Your task to perform on an android device: What's on Reddit Image 0: 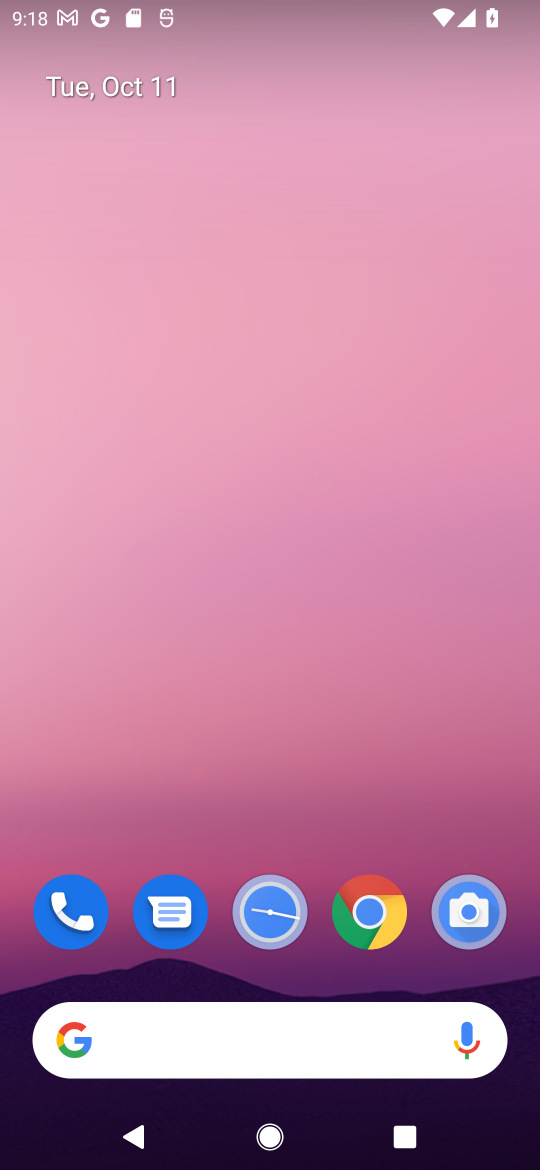
Step 0: click (368, 920)
Your task to perform on an android device: What's on Reddit Image 1: 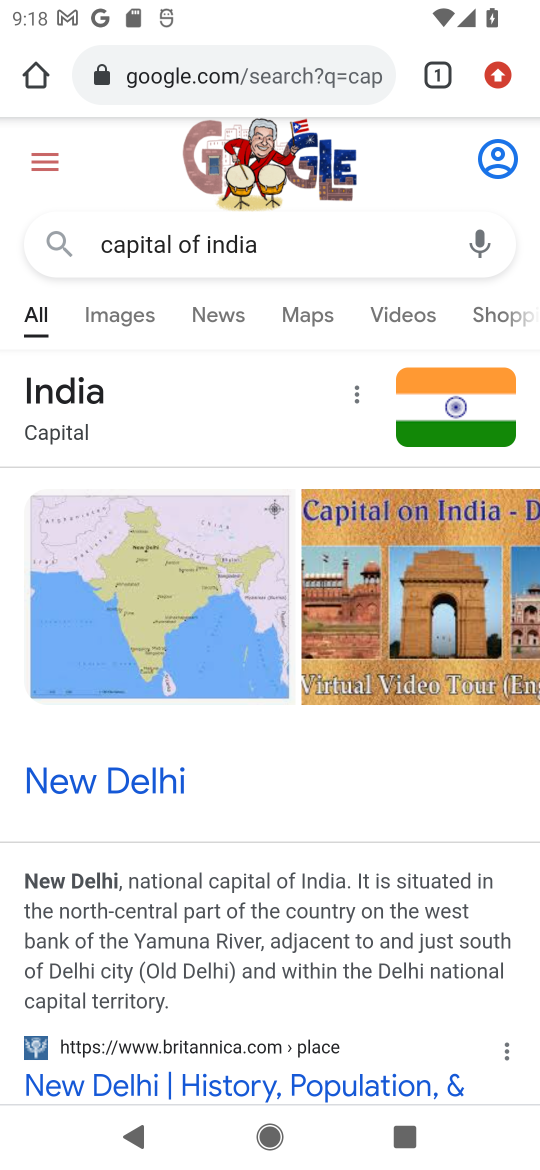
Step 1: click (251, 55)
Your task to perform on an android device: What's on Reddit Image 2: 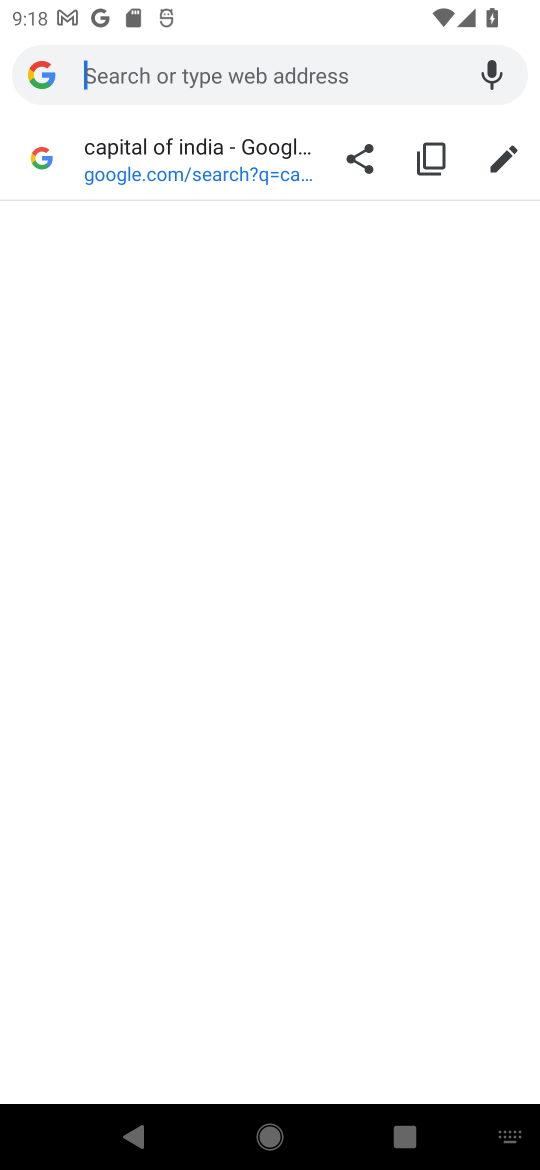
Step 2: type "what's on reddit"
Your task to perform on an android device: What's on Reddit Image 3: 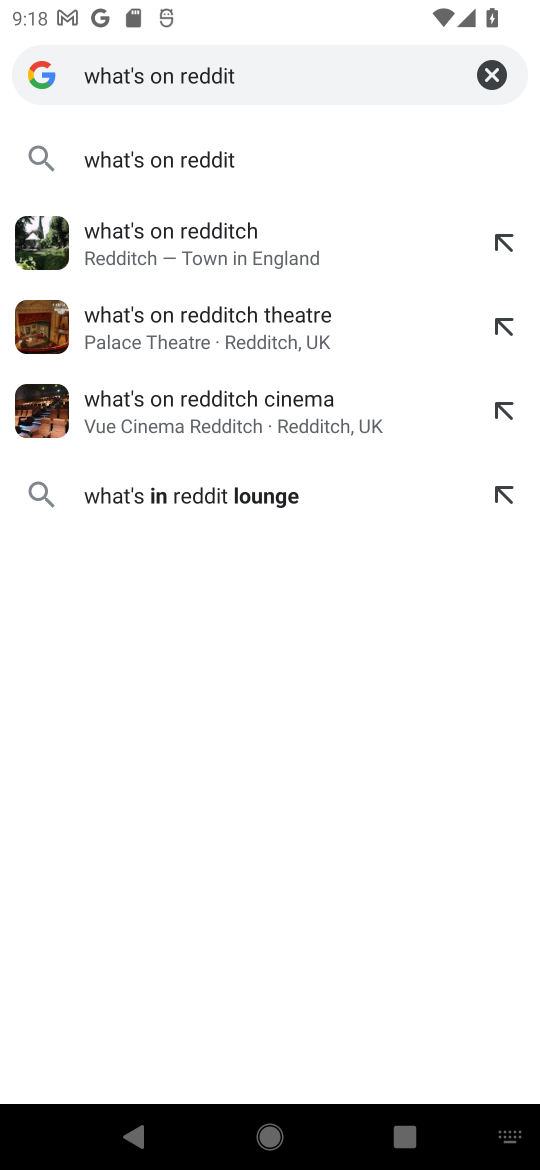
Step 3: click (156, 160)
Your task to perform on an android device: What's on Reddit Image 4: 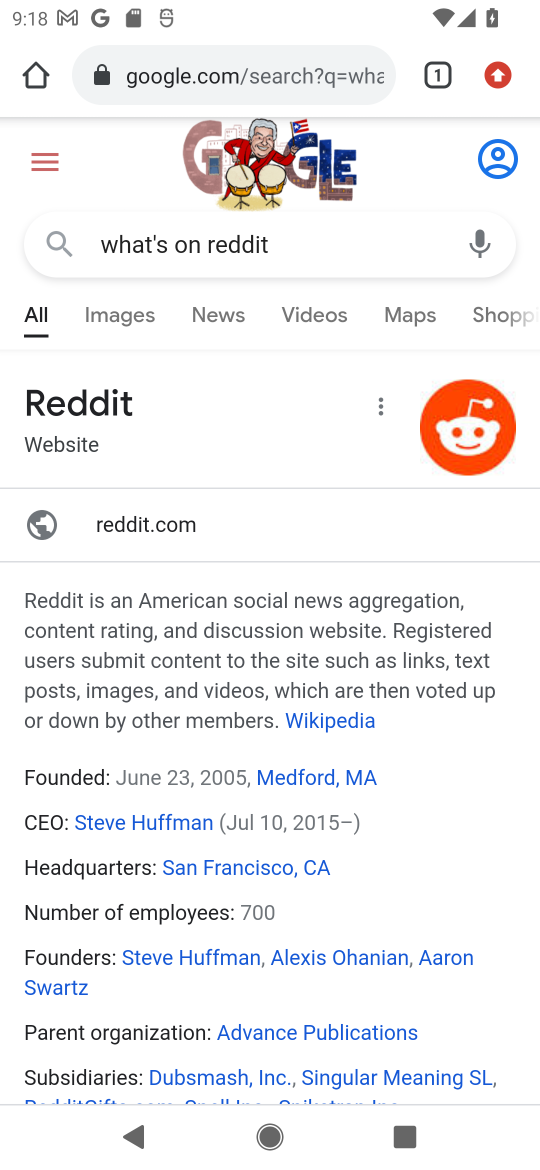
Step 4: drag from (218, 721) to (205, 75)
Your task to perform on an android device: What's on Reddit Image 5: 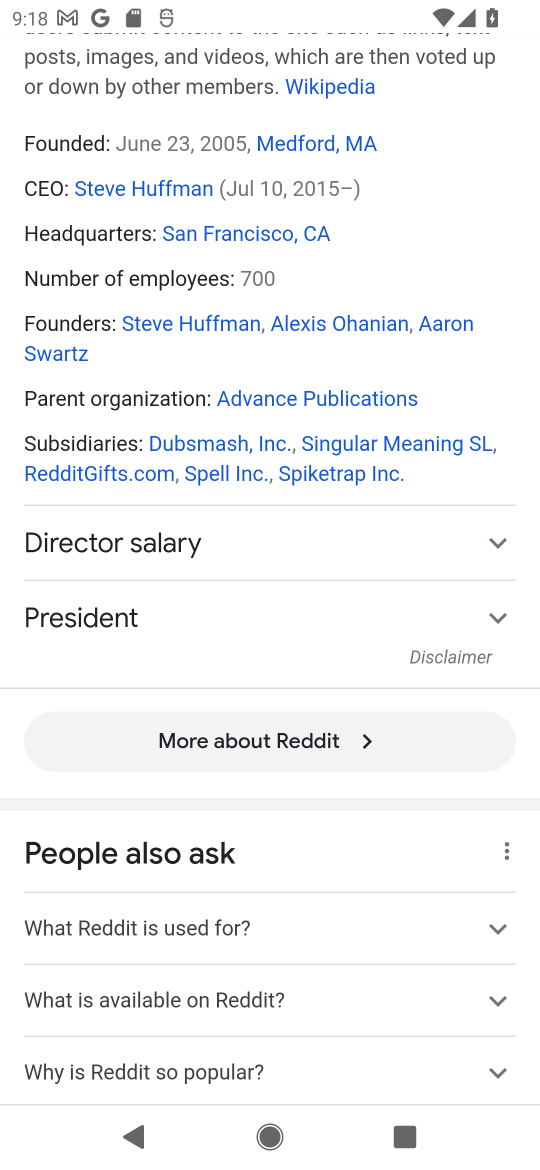
Step 5: drag from (216, 710) to (212, 71)
Your task to perform on an android device: What's on Reddit Image 6: 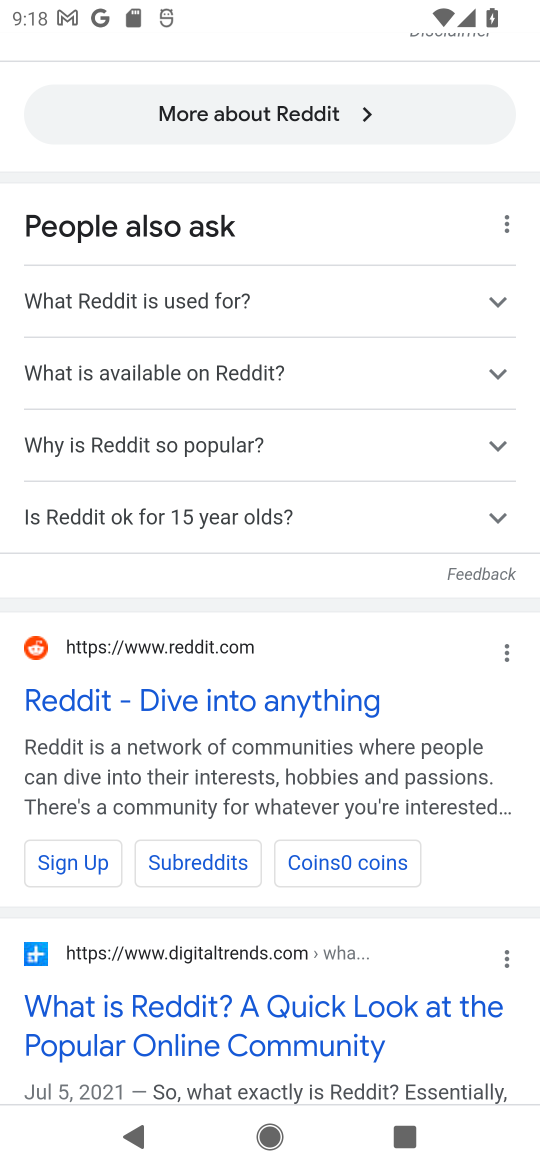
Step 6: click (142, 704)
Your task to perform on an android device: What's on Reddit Image 7: 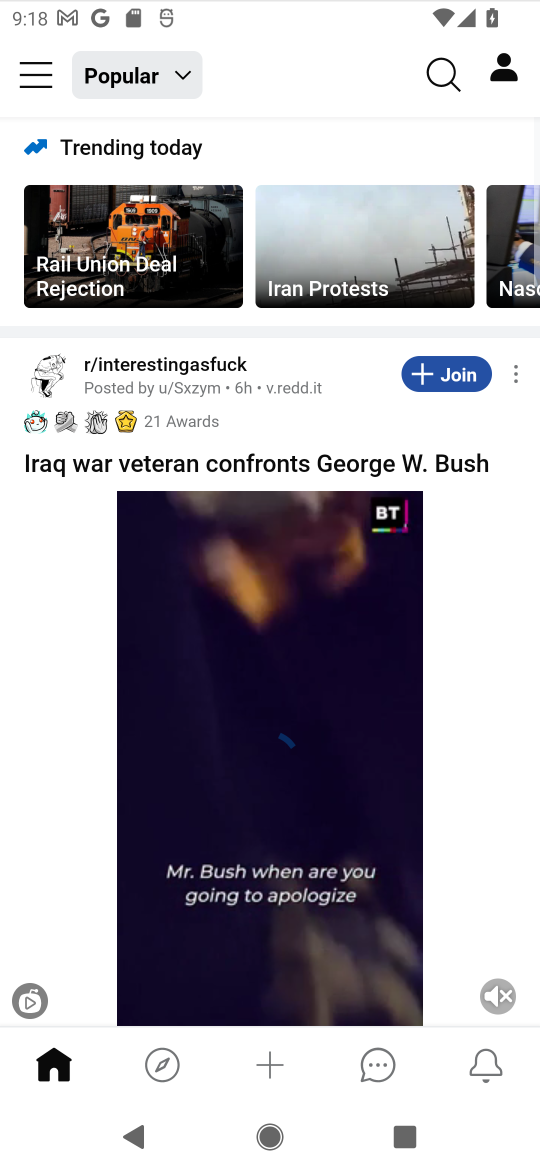
Step 7: task complete